Your task to perform on an android device: see tabs open on other devices in the chrome app Image 0: 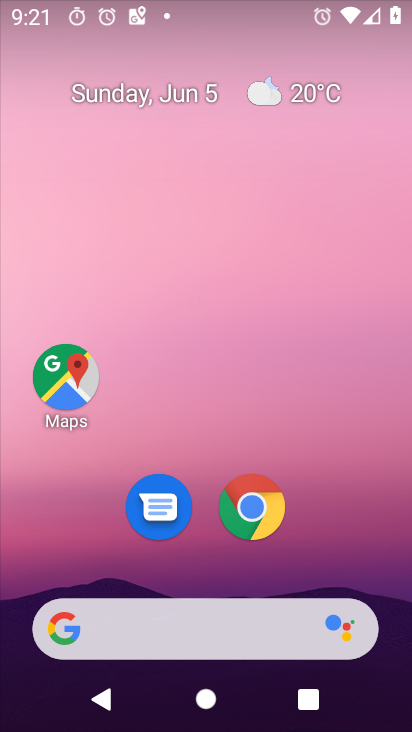
Step 0: drag from (377, 550) to (175, 17)
Your task to perform on an android device: see tabs open on other devices in the chrome app Image 1: 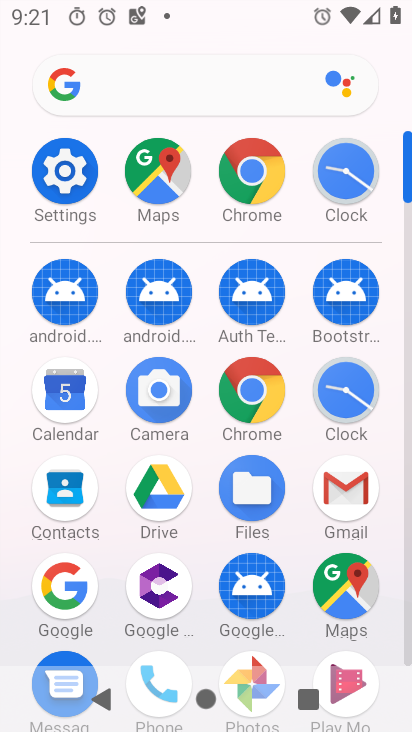
Step 1: drag from (30, 562) to (11, 256)
Your task to perform on an android device: see tabs open on other devices in the chrome app Image 2: 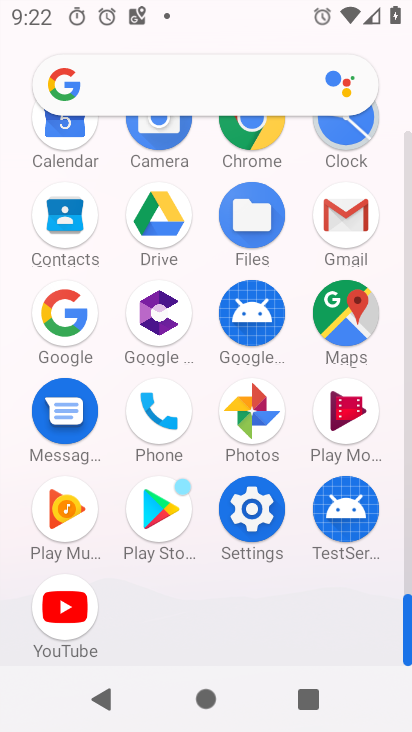
Step 2: drag from (8, 151) to (16, 421)
Your task to perform on an android device: see tabs open on other devices in the chrome app Image 3: 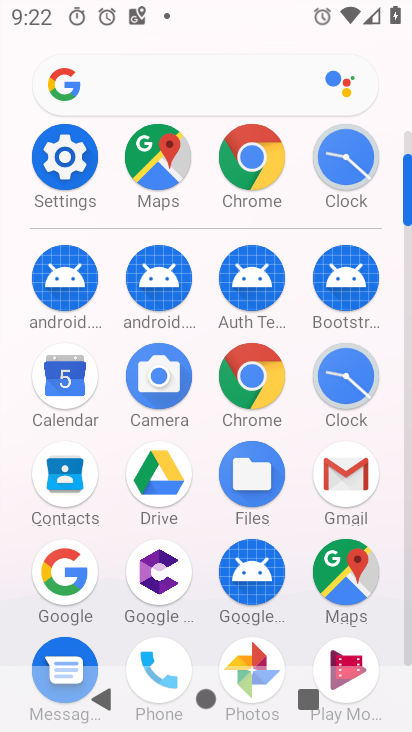
Step 3: click (251, 372)
Your task to perform on an android device: see tabs open on other devices in the chrome app Image 4: 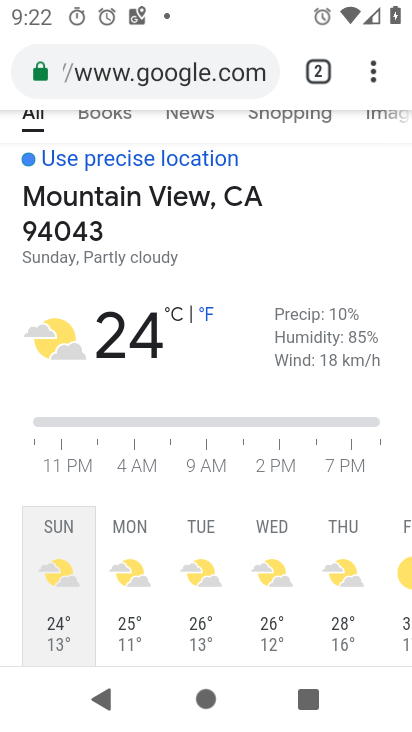
Step 4: task complete